Your task to perform on an android device: open app "Grab" Image 0: 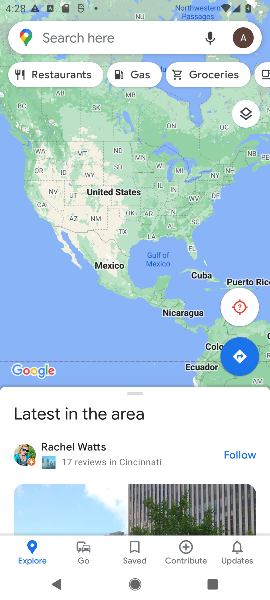
Step 0: press home button
Your task to perform on an android device: open app "Grab" Image 1: 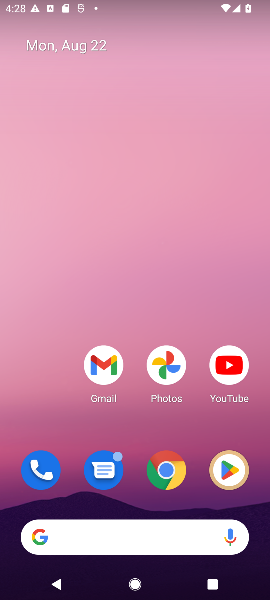
Step 1: drag from (90, 491) to (94, 101)
Your task to perform on an android device: open app "Grab" Image 2: 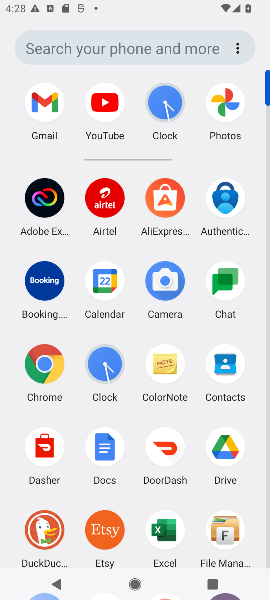
Step 2: drag from (111, 522) to (143, 125)
Your task to perform on an android device: open app "Grab" Image 3: 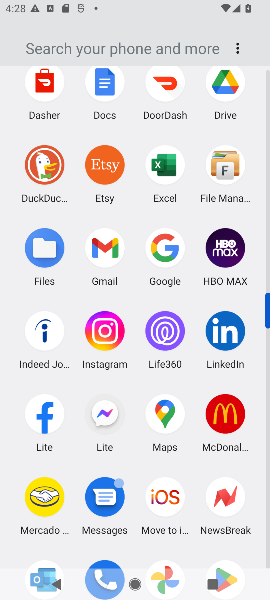
Step 3: drag from (70, 568) to (164, 30)
Your task to perform on an android device: open app "Grab" Image 4: 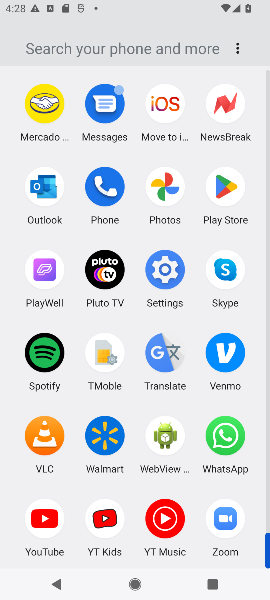
Step 4: drag from (67, 467) to (107, 51)
Your task to perform on an android device: open app "Grab" Image 5: 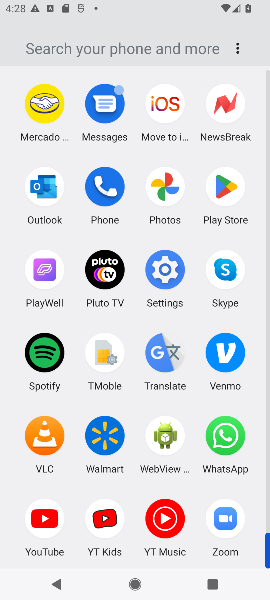
Step 5: click (227, 178)
Your task to perform on an android device: open app "Grab" Image 6: 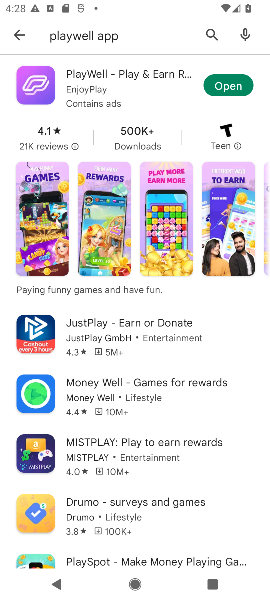
Step 6: click (22, 32)
Your task to perform on an android device: open app "Grab" Image 7: 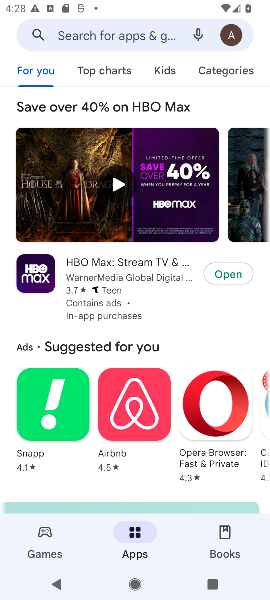
Step 7: click (126, 34)
Your task to perform on an android device: open app "Grab" Image 8: 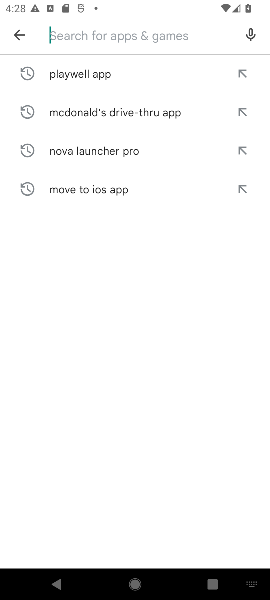
Step 8: type "grab "
Your task to perform on an android device: open app "Grab" Image 9: 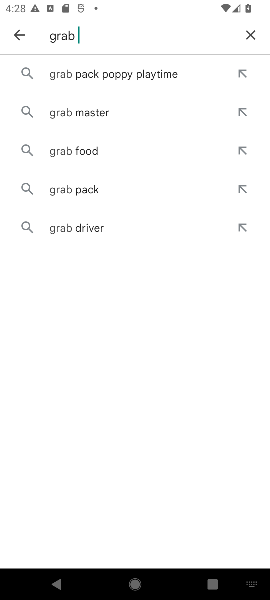
Step 9: click (101, 73)
Your task to perform on an android device: open app "Grab" Image 10: 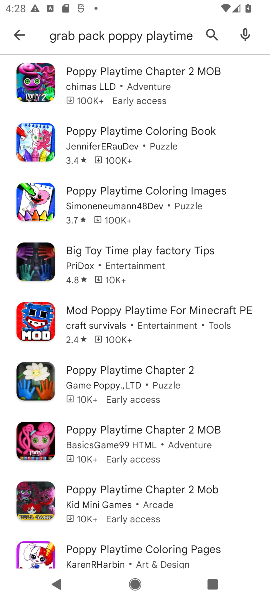
Step 10: click (22, 34)
Your task to perform on an android device: open app "Grab" Image 11: 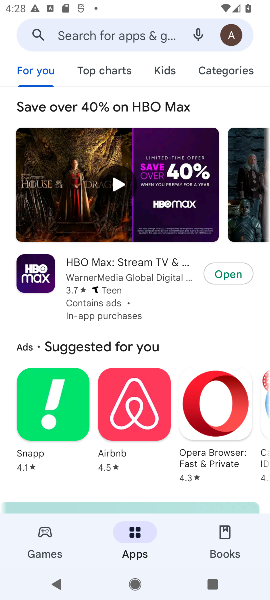
Step 11: click (87, 30)
Your task to perform on an android device: open app "Grab" Image 12: 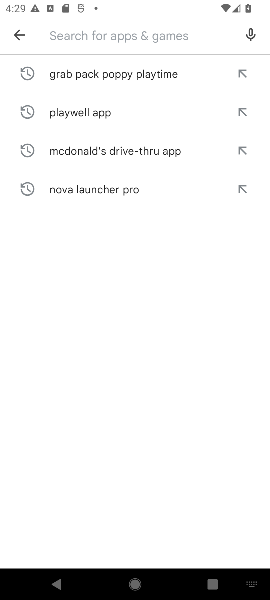
Step 12: type "grab "
Your task to perform on an android device: open app "Grab" Image 13: 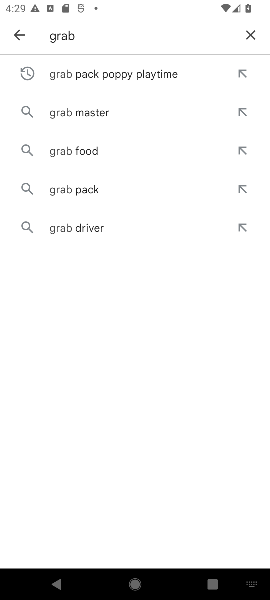
Step 13: click (86, 163)
Your task to perform on an android device: open app "Grab" Image 14: 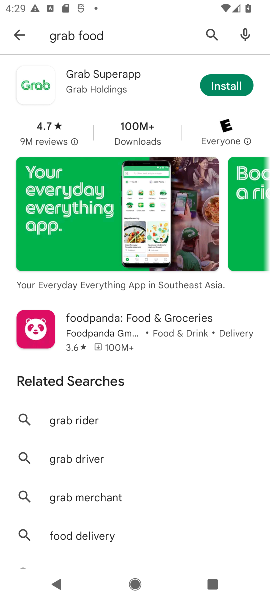
Step 14: click (238, 79)
Your task to perform on an android device: open app "Grab" Image 15: 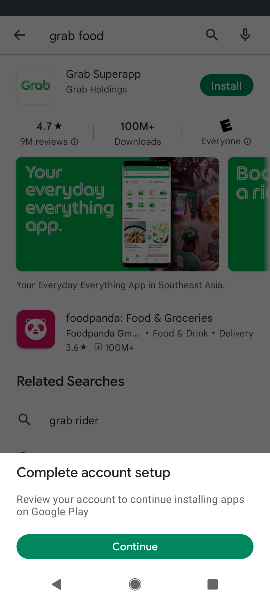
Step 15: task complete